Your task to perform on an android device: turn off notifications settings in the gmail app Image 0: 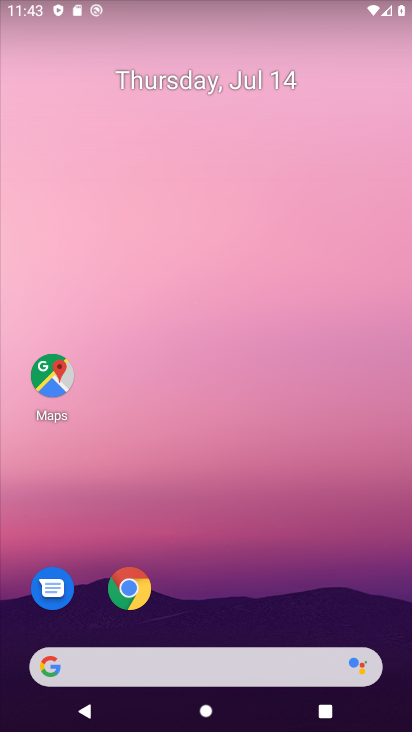
Step 0: drag from (233, 625) to (290, 10)
Your task to perform on an android device: turn off notifications settings in the gmail app Image 1: 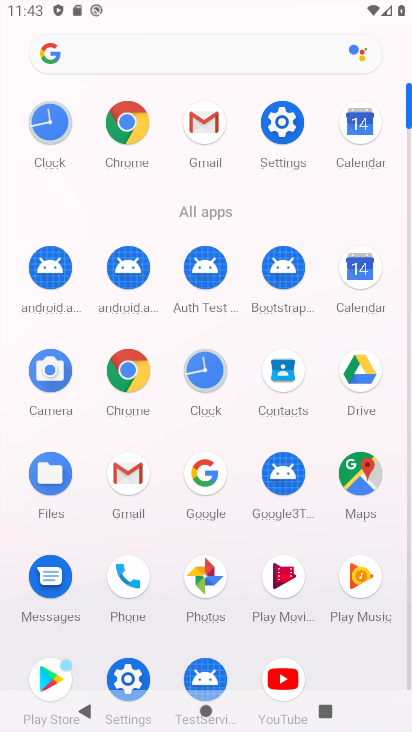
Step 1: click (201, 121)
Your task to perform on an android device: turn off notifications settings in the gmail app Image 2: 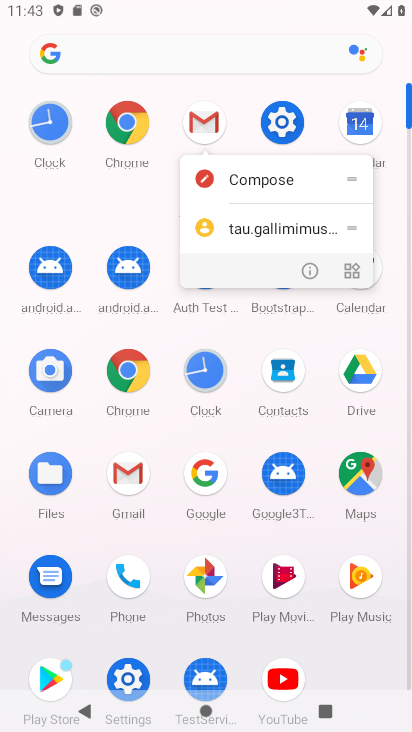
Step 2: click (314, 270)
Your task to perform on an android device: turn off notifications settings in the gmail app Image 3: 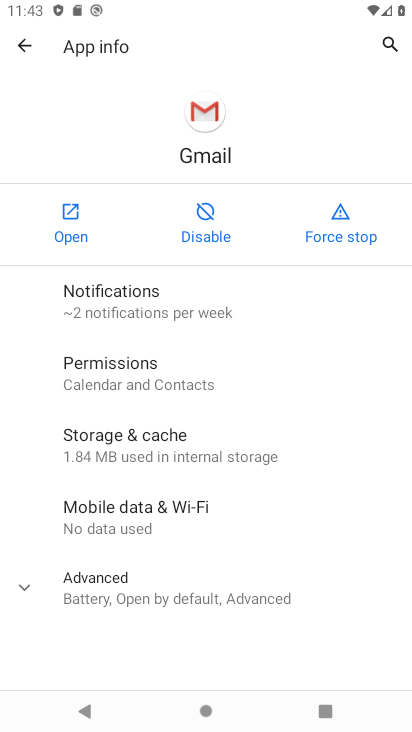
Step 3: click (216, 307)
Your task to perform on an android device: turn off notifications settings in the gmail app Image 4: 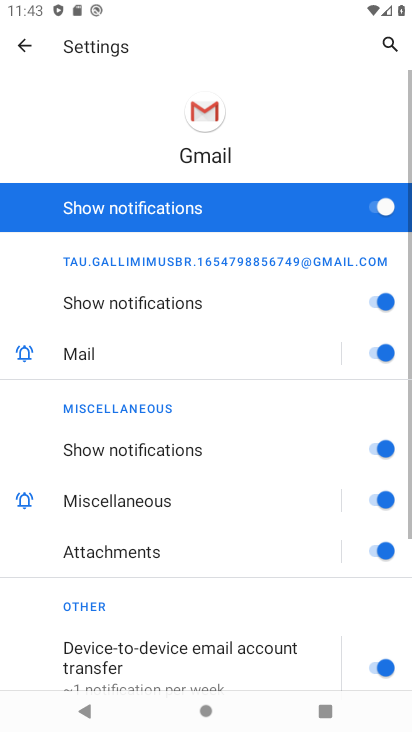
Step 4: click (388, 210)
Your task to perform on an android device: turn off notifications settings in the gmail app Image 5: 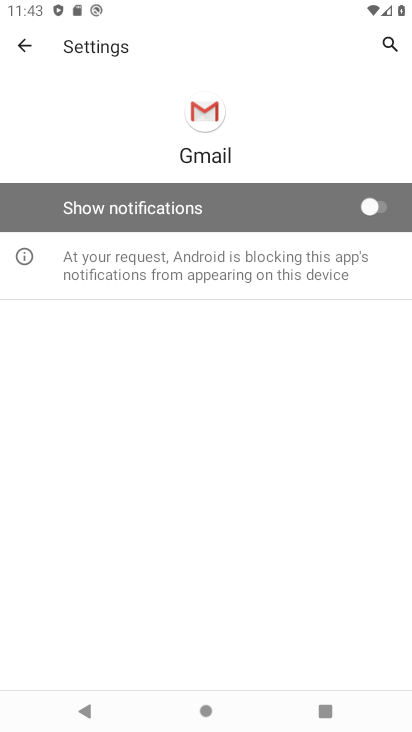
Step 5: task complete